Your task to perform on an android device: Go to calendar. Show me events next week Image 0: 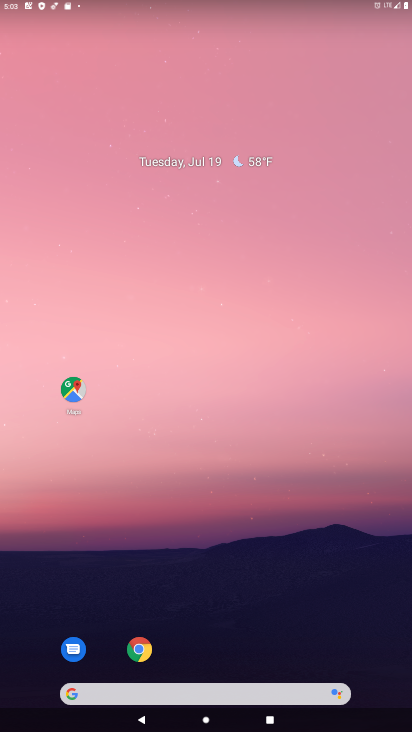
Step 0: drag from (174, 614) to (174, 72)
Your task to perform on an android device: Go to calendar. Show me events next week Image 1: 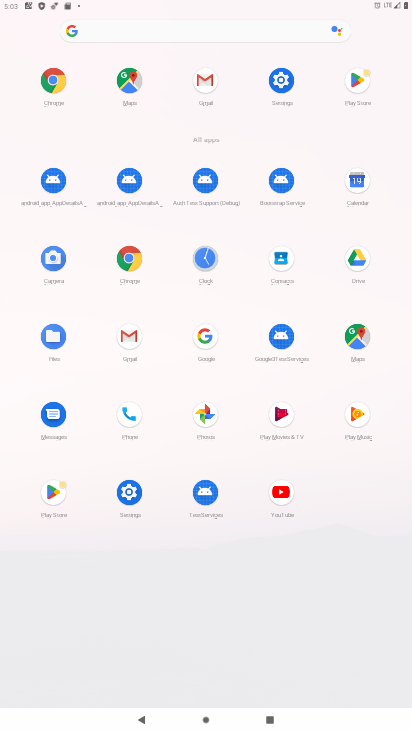
Step 1: click (353, 184)
Your task to perform on an android device: Go to calendar. Show me events next week Image 2: 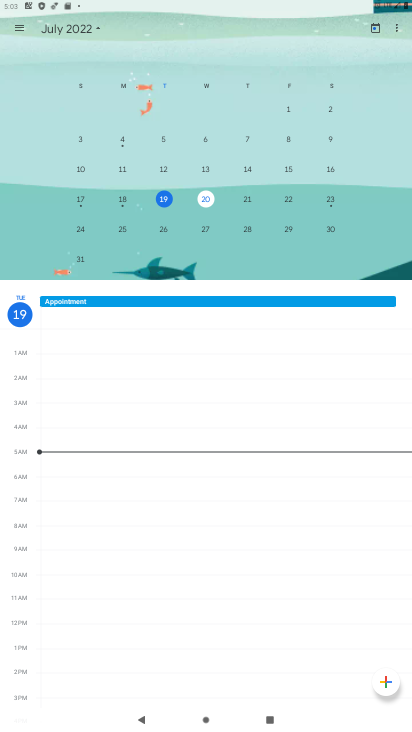
Step 2: click (20, 27)
Your task to perform on an android device: Go to calendar. Show me events next week Image 3: 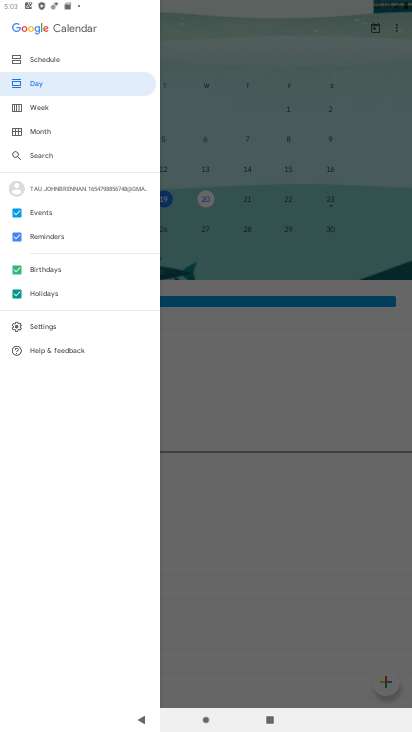
Step 3: click (40, 109)
Your task to perform on an android device: Go to calendar. Show me events next week Image 4: 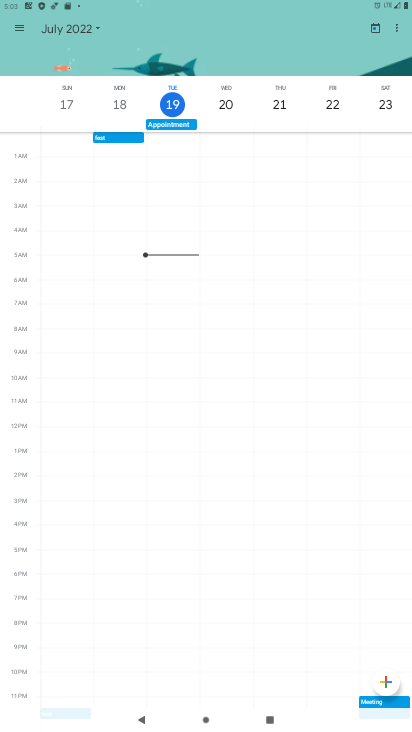
Step 4: click (79, 28)
Your task to perform on an android device: Go to calendar. Show me events next week Image 5: 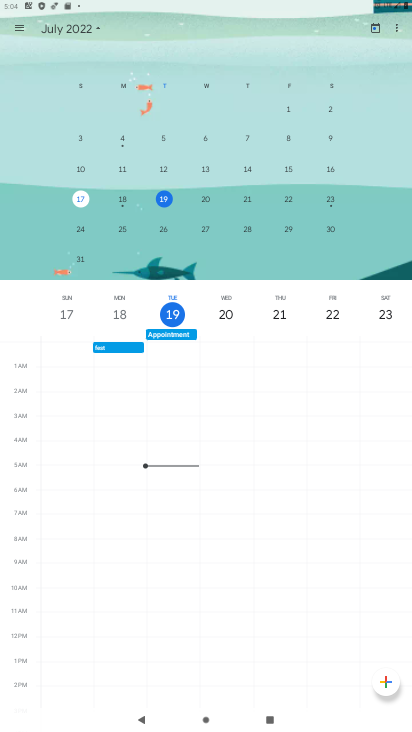
Step 5: click (80, 232)
Your task to perform on an android device: Go to calendar. Show me events next week Image 6: 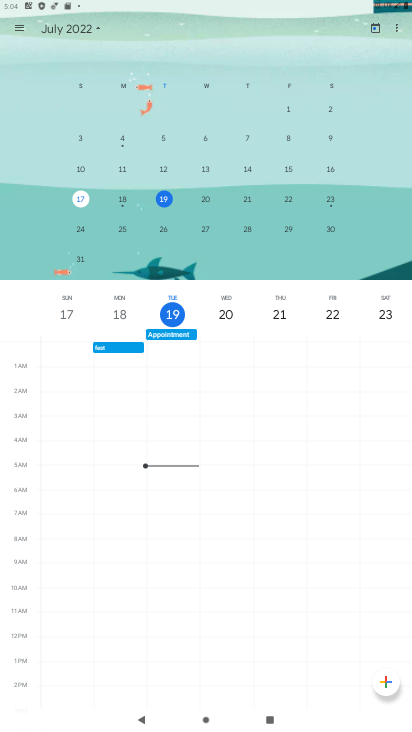
Step 6: click (80, 232)
Your task to perform on an android device: Go to calendar. Show me events next week Image 7: 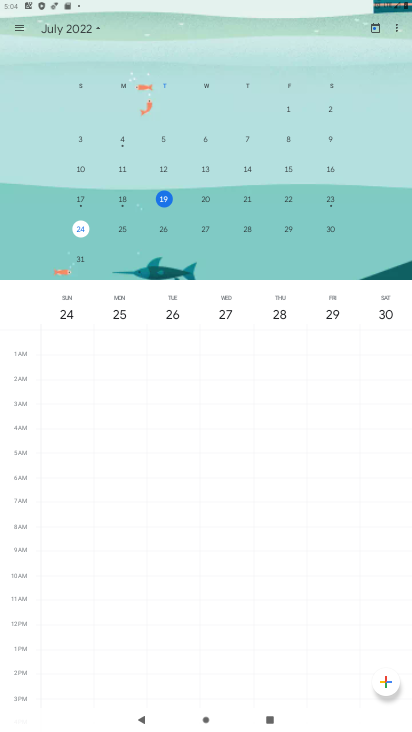
Step 7: task complete